Your task to perform on an android device: Open the map Image 0: 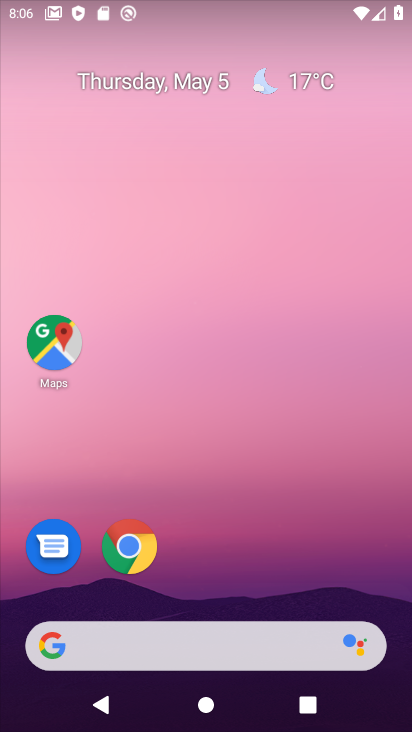
Step 0: drag from (184, 622) to (312, 135)
Your task to perform on an android device: Open the map Image 1: 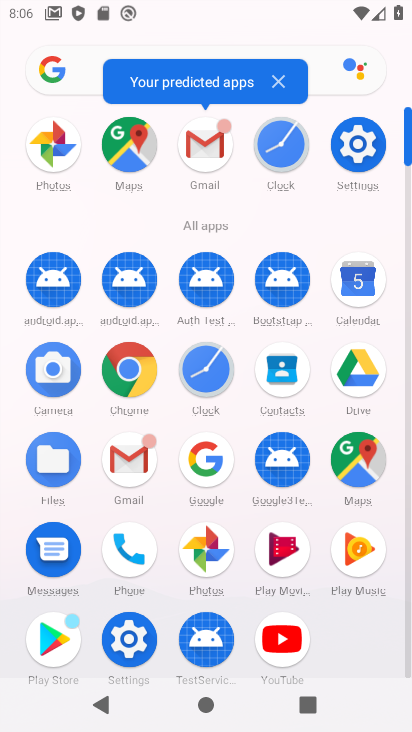
Step 1: click (128, 155)
Your task to perform on an android device: Open the map Image 2: 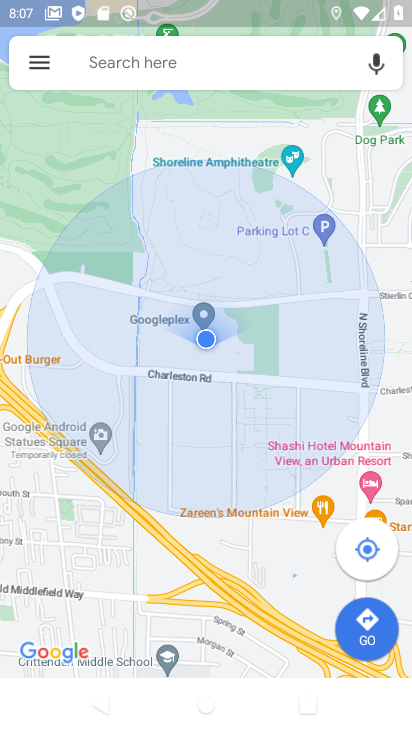
Step 2: task complete